Your task to perform on an android device: move an email to a new category in the gmail app Image 0: 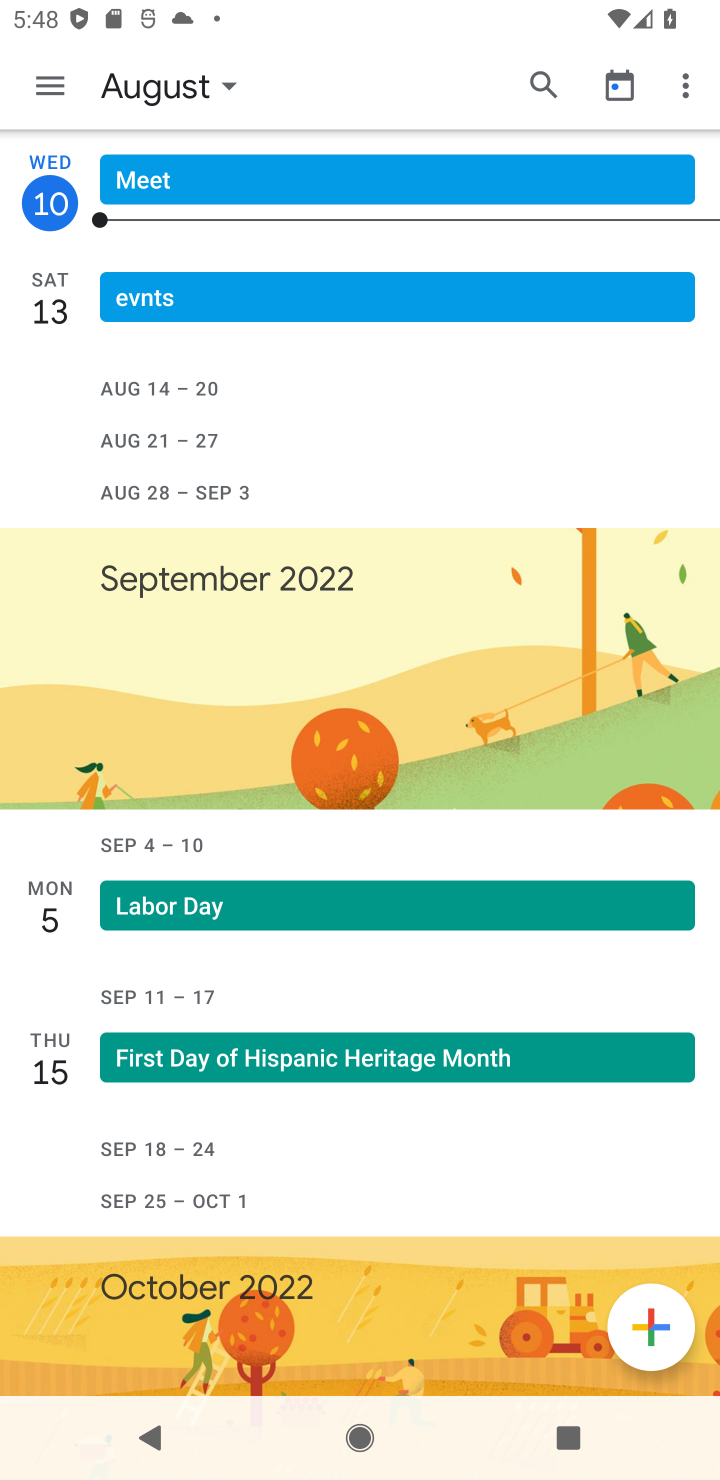
Step 0: press home button
Your task to perform on an android device: move an email to a new category in the gmail app Image 1: 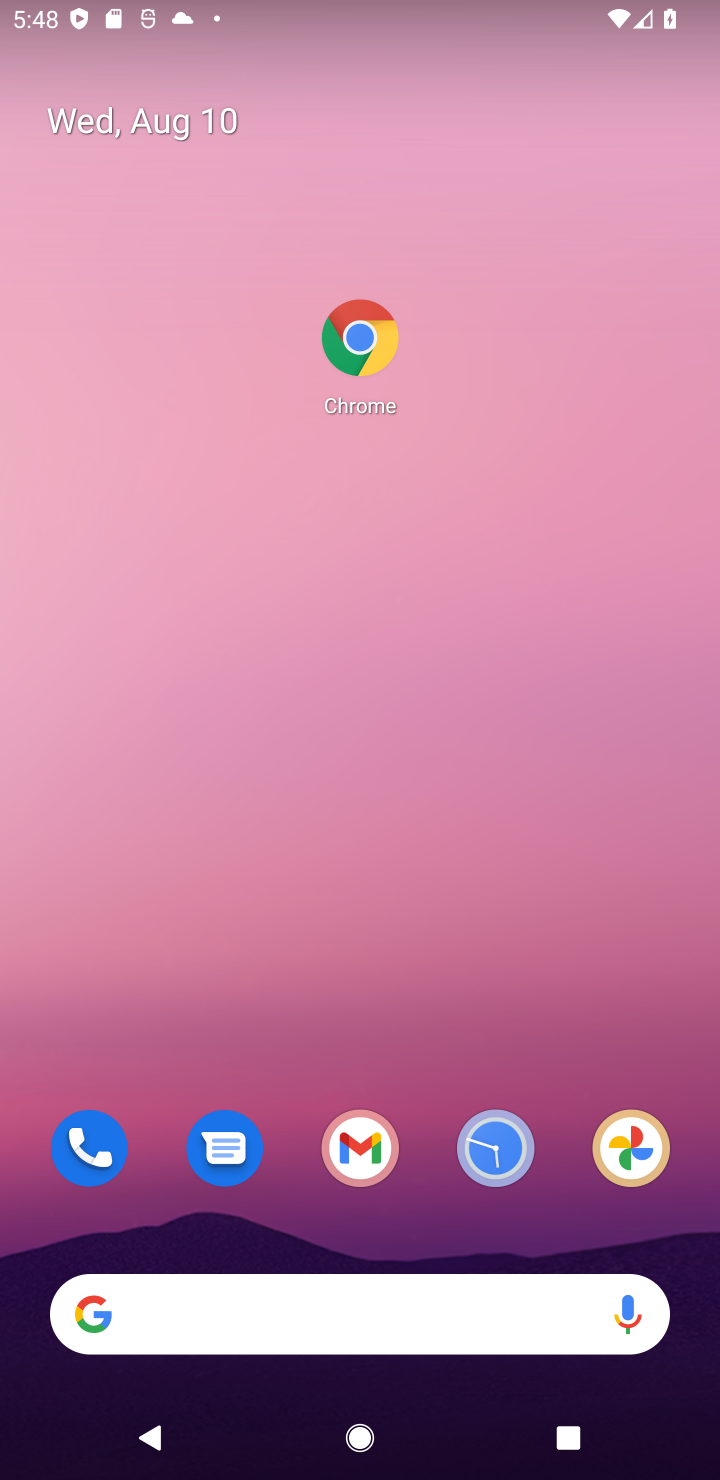
Step 1: click (373, 1153)
Your task to perform on an android device: move an email to a new category in the gmail app Image 2: 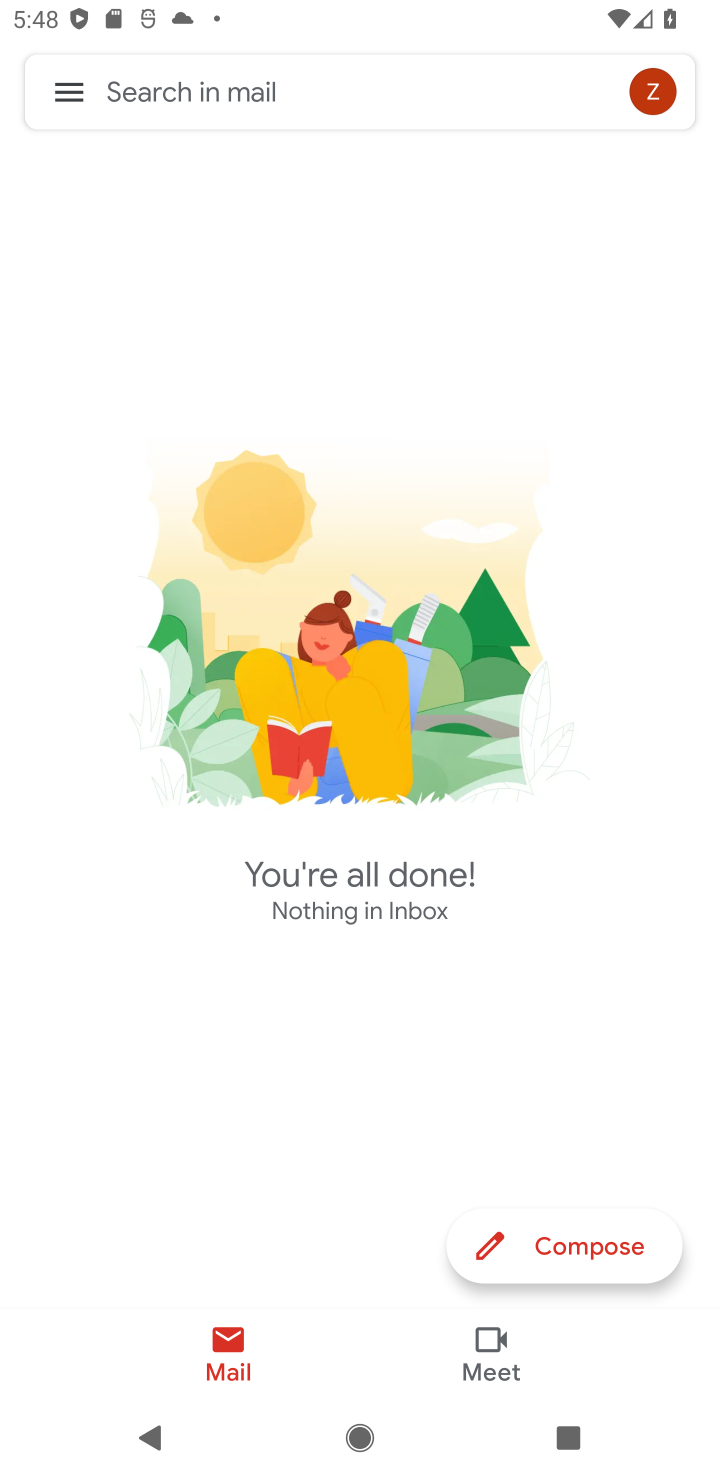
Step 2: click (52, 100)
Your task to perform on an android device: move an email to a new category in the gmail app Image 3: 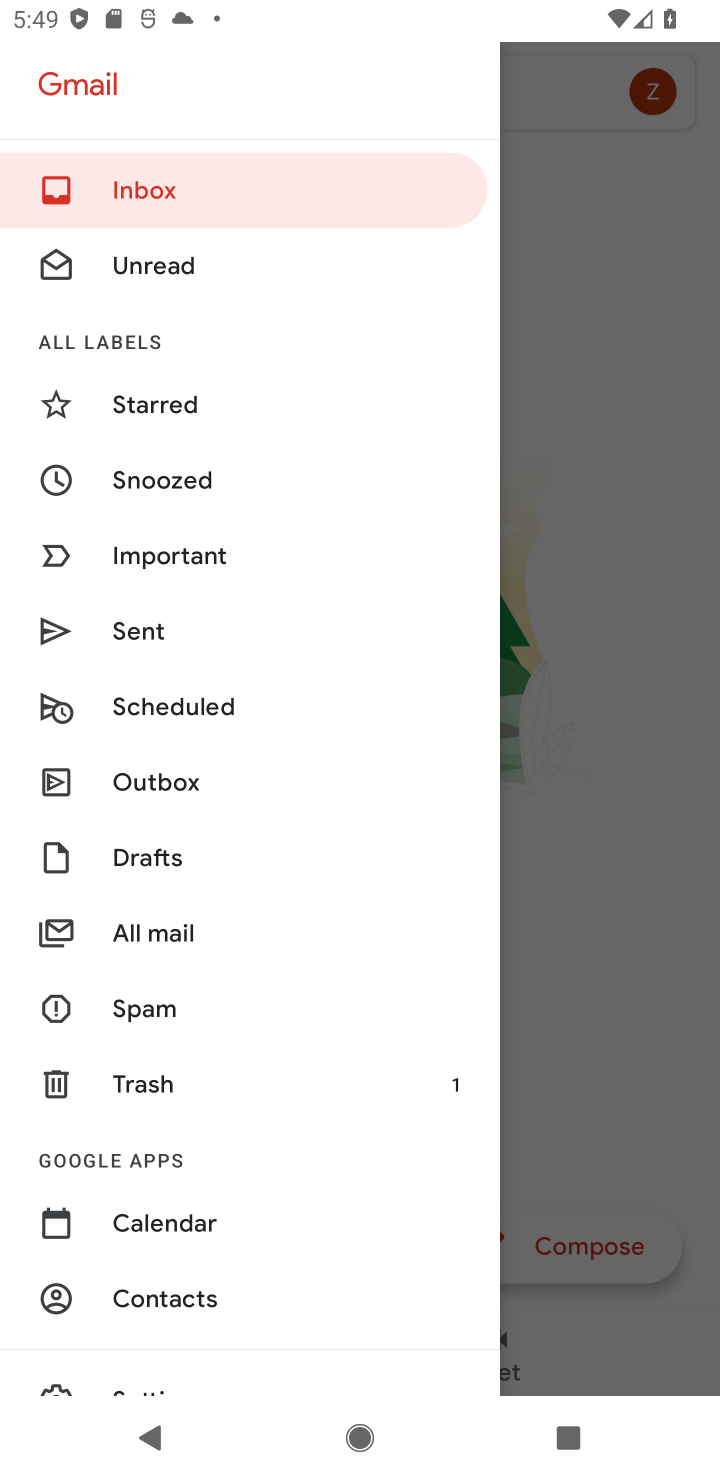
Step 3: click (130, 942)
Your task to perform on an android device: move an email to a new category in the gmail app Image 4: 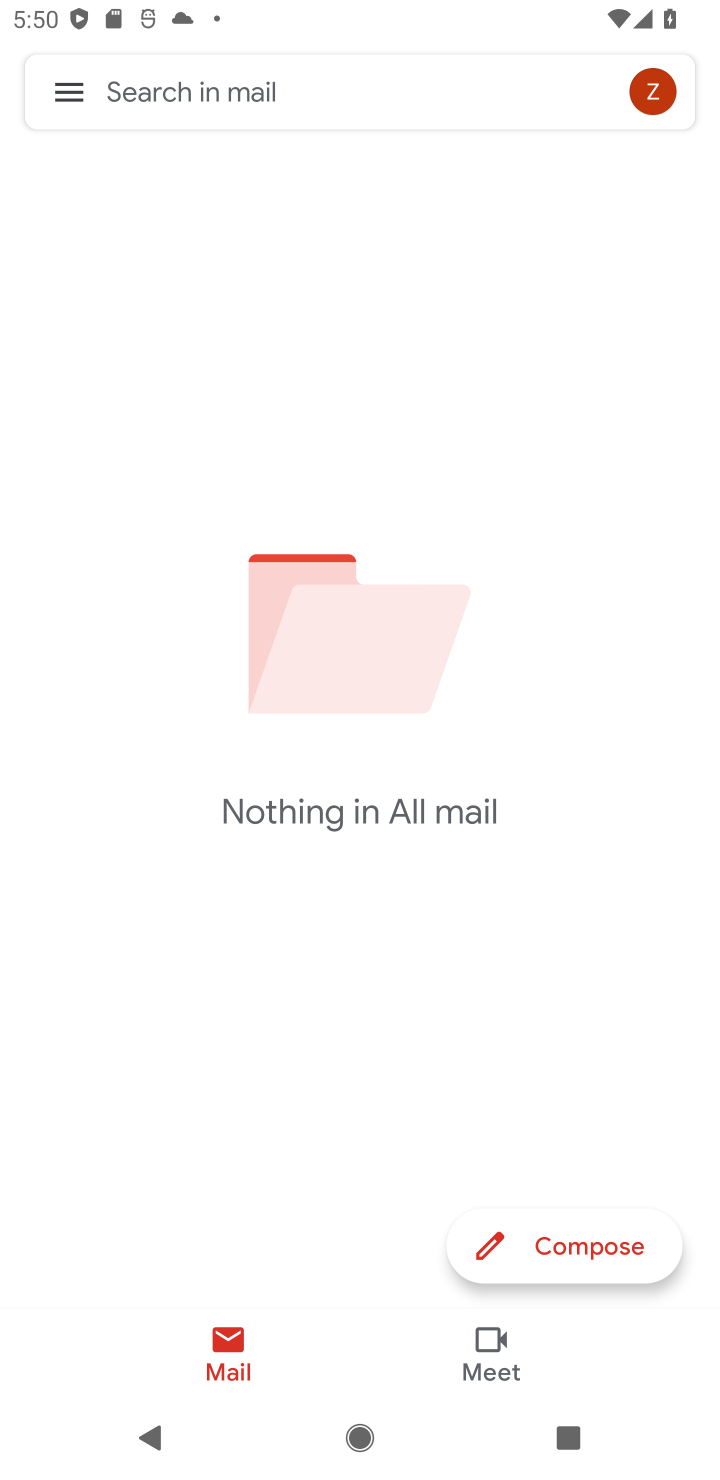
Step 4: task complete